Your task to perform on an android device: Search for Italian restaurants on Maps Image 0: 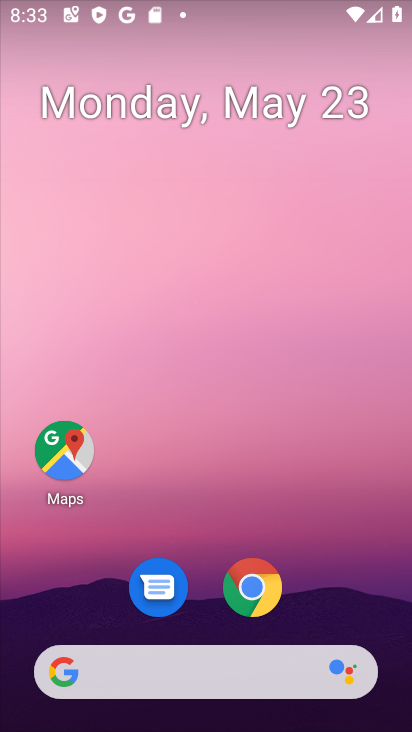
Step 0: click (59, 453)
Your task to perform on an android device: Search for Italian restaurants on Maps Image 1: 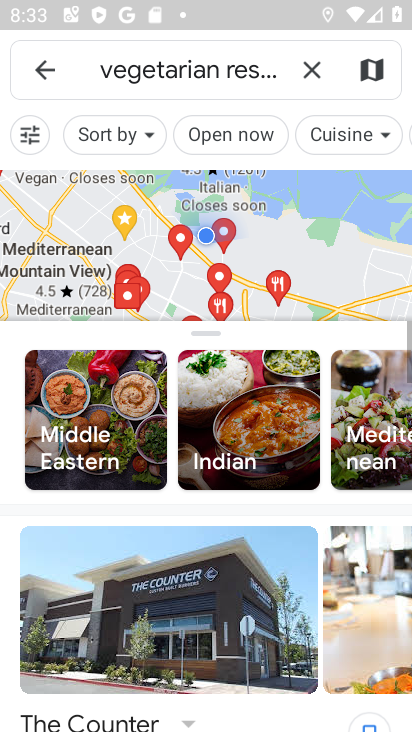
Step 1: click (303, 64)
Your task to perform on an android device: Search for Italian restaurants on Maps Image 2: 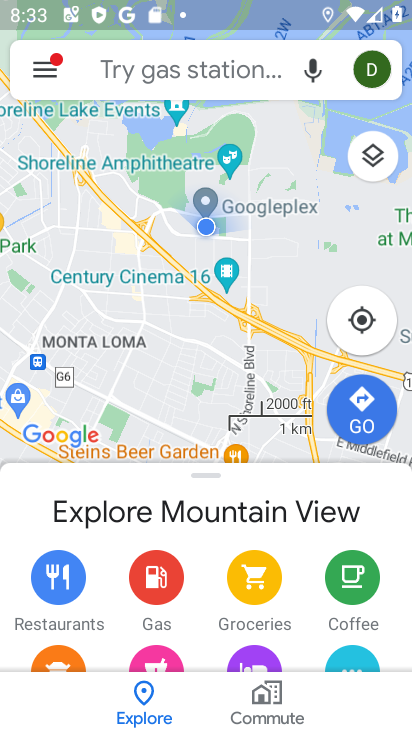
Step 2: click (164, 74)
Your task to perform on an android device: Search for Italian restaurants on Maps Image 3: 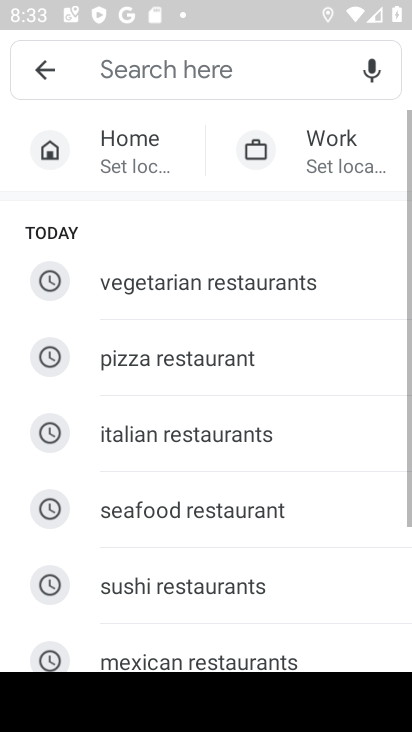
Step 3: click (147, 435)
Your task to perform on an android device: Search for Italian restaurants on Maps Image 4: 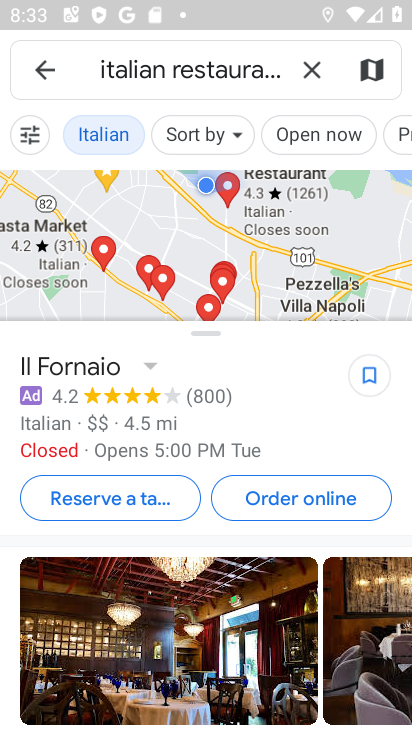
Step 4: task complete